Your task to perform on an android device: clear all cookies in the chrome app Image 0: 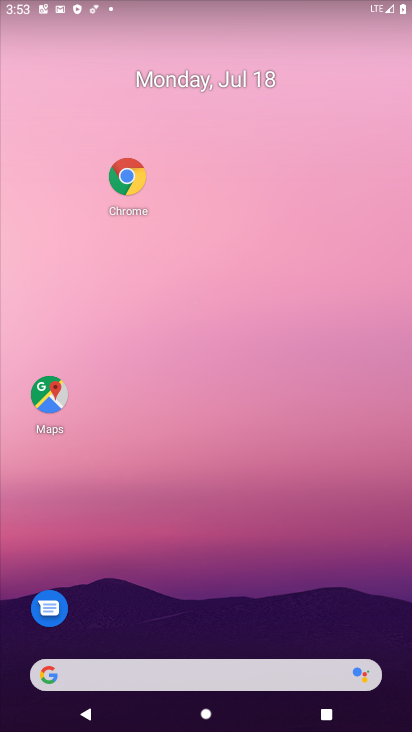
Step 0: drag from (219, 690) to (295, 153)
Your task to perform on an android device: clear all cookies in the chrome app Image 1: 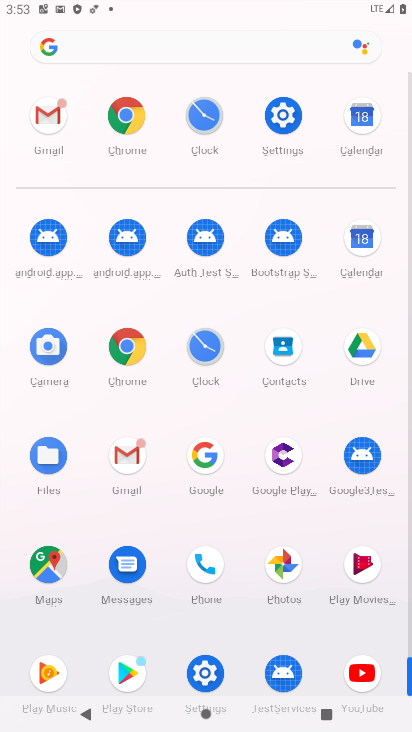
Step 1: click (122, 361)
Your task to perform on an android device: clear all cookies in the chrome app Image 2: 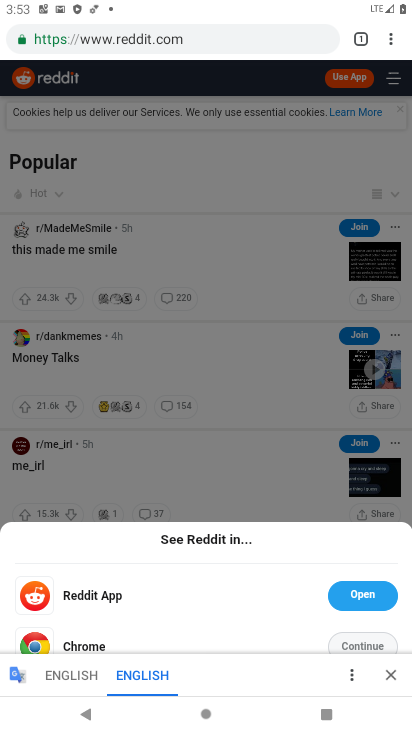
Step 2: press home button
Your task to perform on an android device: clear all cookies in the chrome app Image 3: 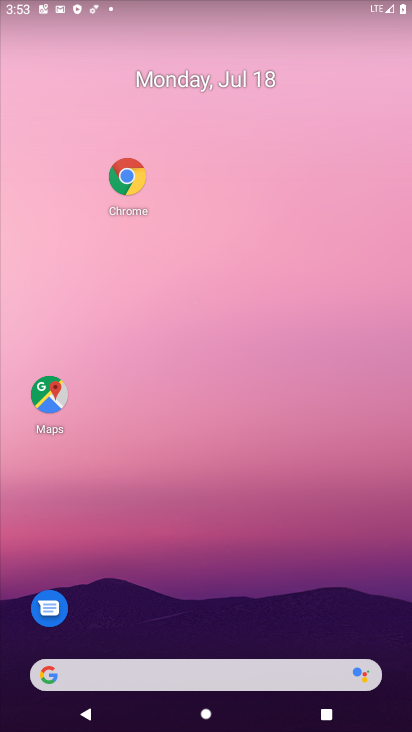
Step 3: drag from (226, 687) to (205, 266)
Your task to perform on an android device: clear all cookies in the chrome app Image 4: 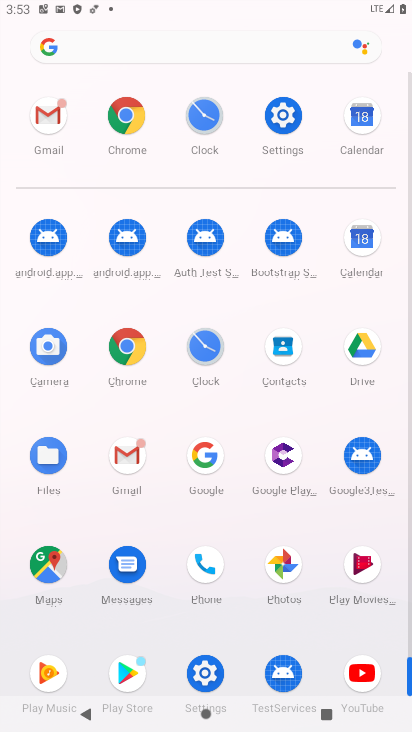
Step 4: click (121, 369)
Your task to perform on an android device: clear all cookies in the chrome app Image 5: 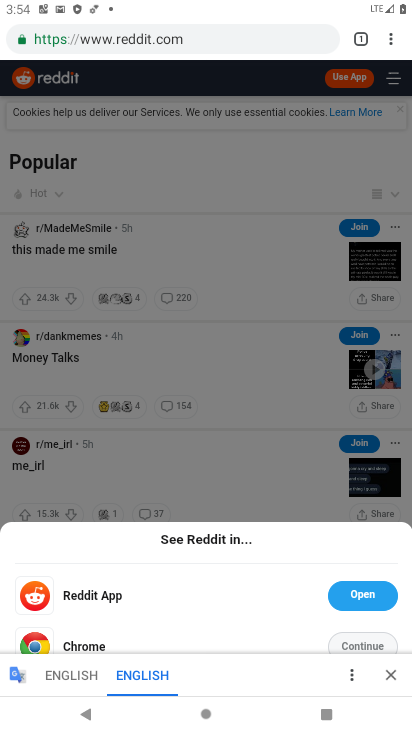
Step 5: click (388, 38)
Your task to perform on an android device: clear all cookies in the chrome app Image 6: 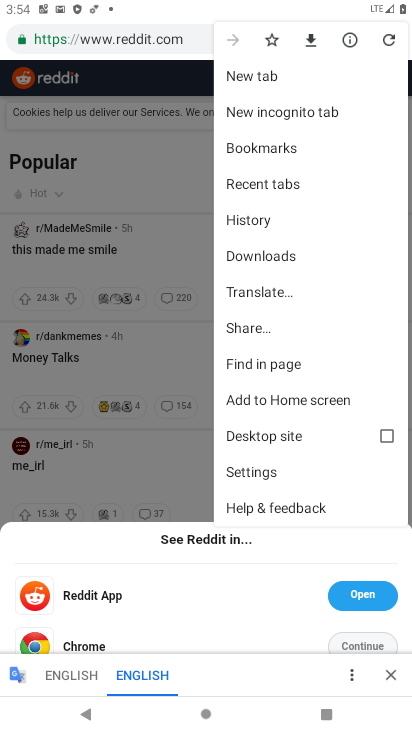
Step 6: click (263, 225)
Your task to perform on an android device: clear all cookies in the chrome app Image 7: 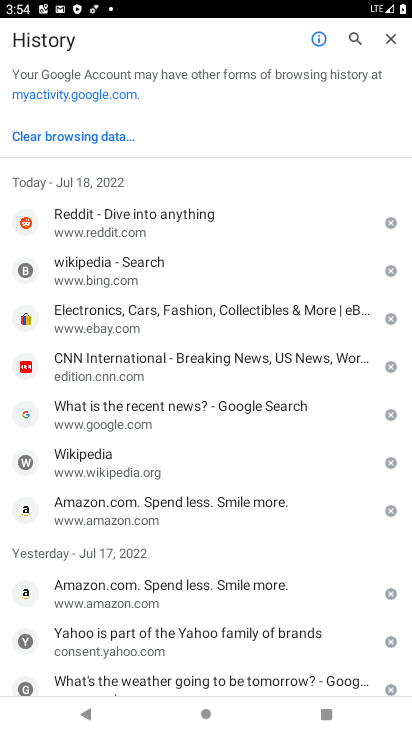
Step 7: click (96, 135)
Your task to perform on an android device: clear all cookies in the chrome app Image 8: 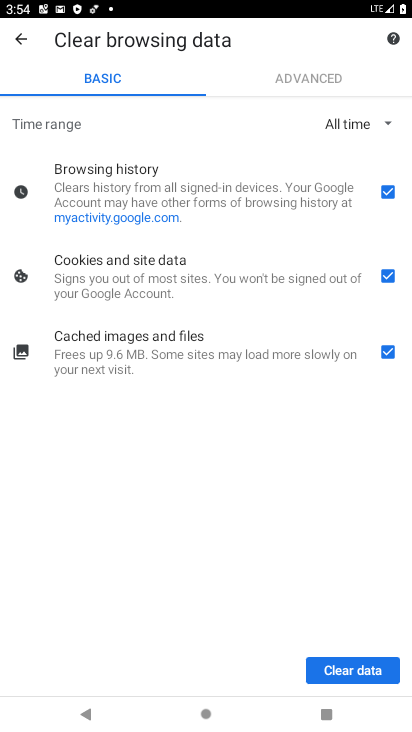
Step 8: click (381, 192)
Your task to perform on an android device: clear all cookies in the chrome app Image 9: 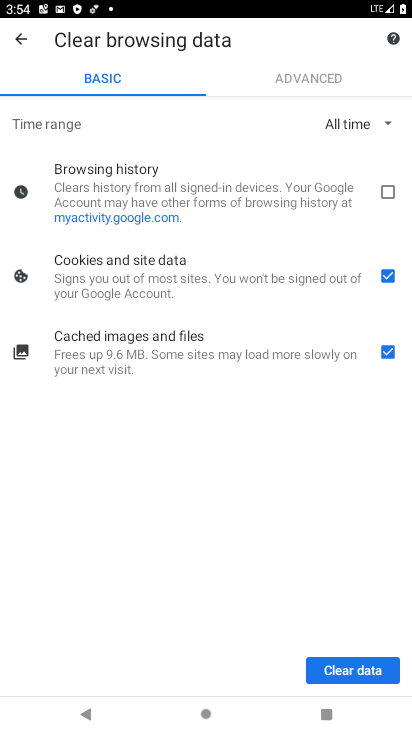
Step 9: click (393, 357)
Your task to perform on an android device: clear all cookies in the chrome app Image 10: 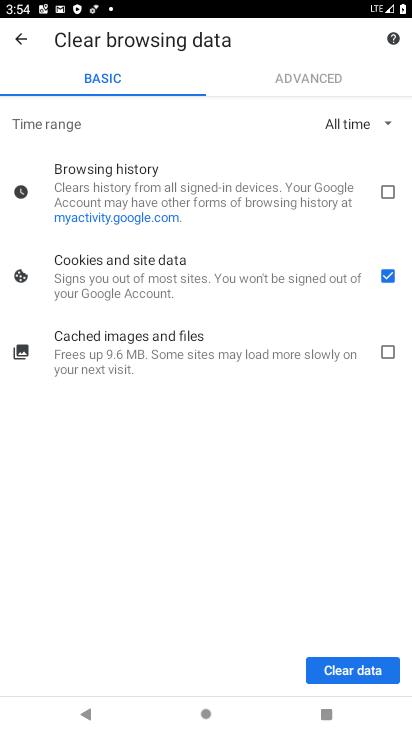
Step 10: click (361, 679)
Your task to perform on an android device: clear all cookies in the chrome app Image 11: 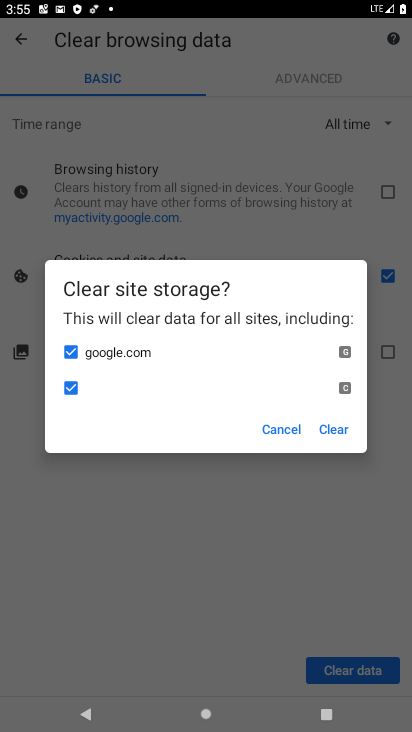
Step 11: click (333, 430)
Your task to perform on an android device: clear all cookies in the chrome app Image 12: 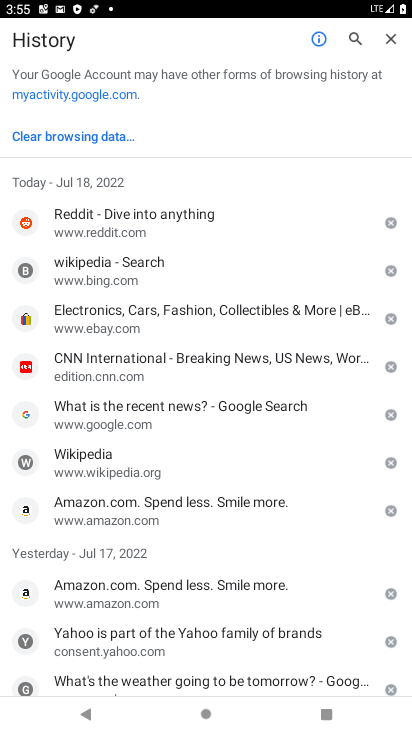
Step 12: task complete